Your task to perform on an android device: turn on translation in the chrome app Image 0: 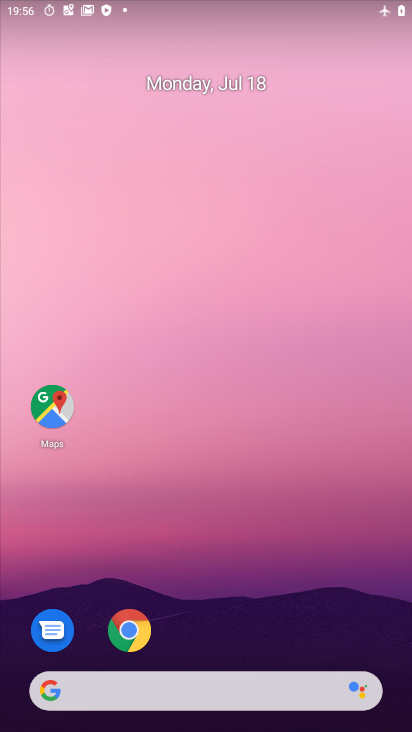
Step 0: drag from (321, 463) to (274, 239)
Your task to perform on an android device: turn on translation in the chrome app Image 1: 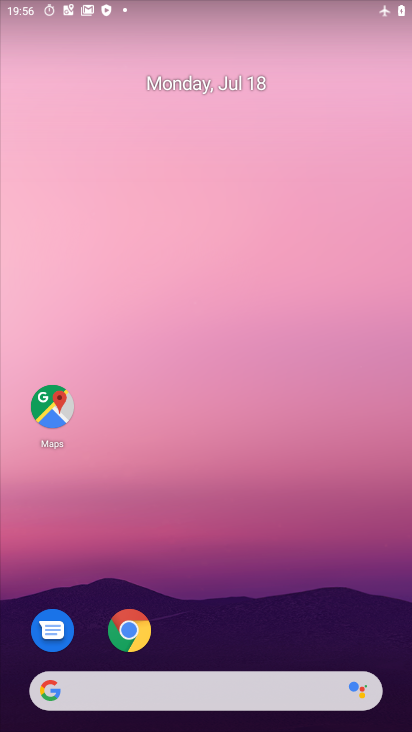
Step 1: drag from (320, 604) to (321, 70)
Your task to perform on an android device: turn on translation in the chrome app Image 2: 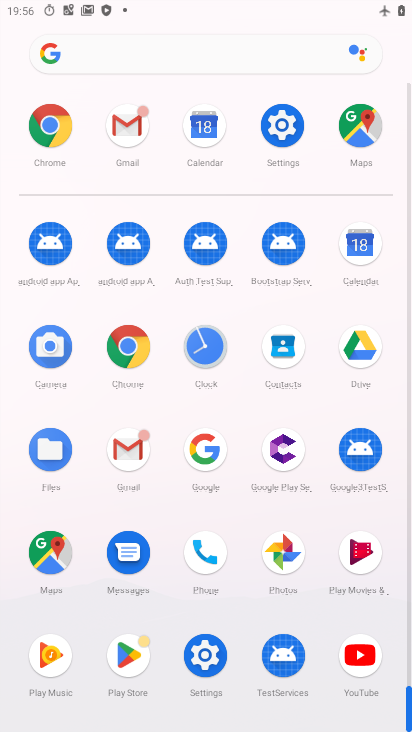
Step 2: click (57, 138)
Your task to perform on an android device: turn on translation in the chrome app Image 3: 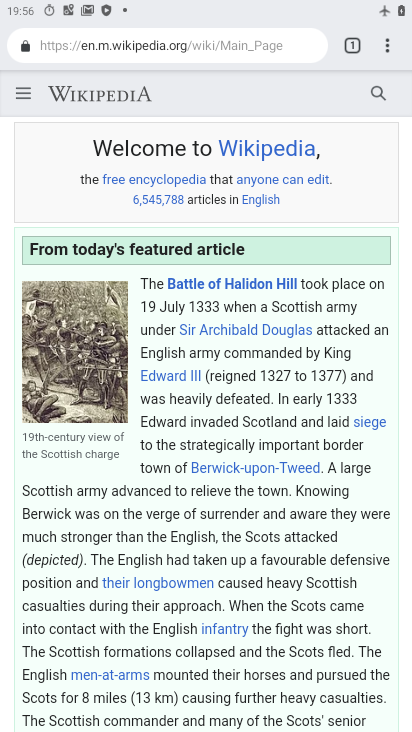
Step 3: drag from (393, 46) to (228, 509)
Your task to perform on an android device: turn on translation in the chrome app Image 4: 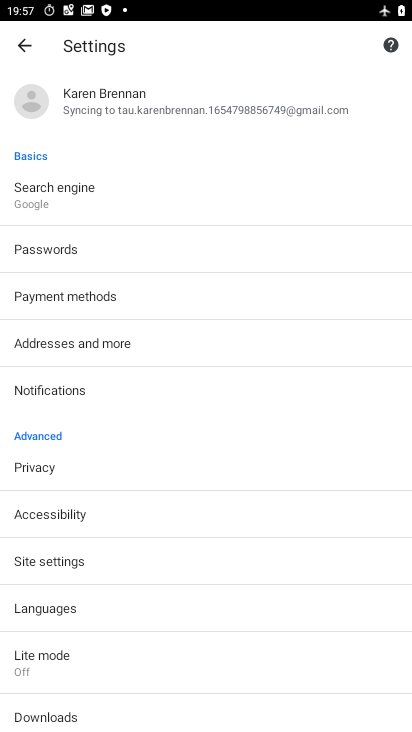
Step 4: drag from (98, 648) to (166, 295)
Your task to perform on an android device: turn on translation in the chrome app Image 5: 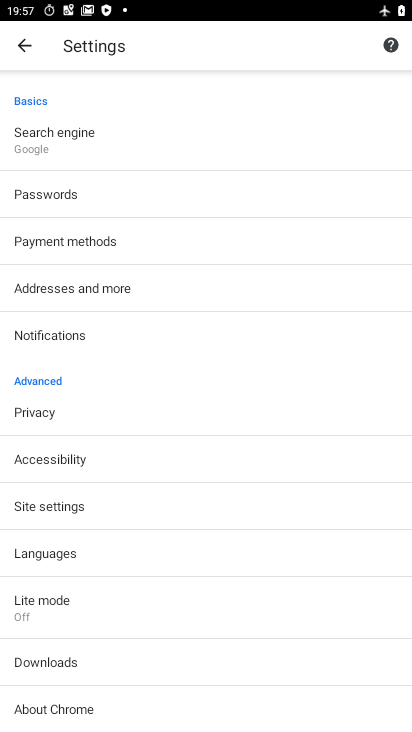
Step 5: click (58, 551)
Your task to perform on an android device: turn on translation in the chrome app Image 6: 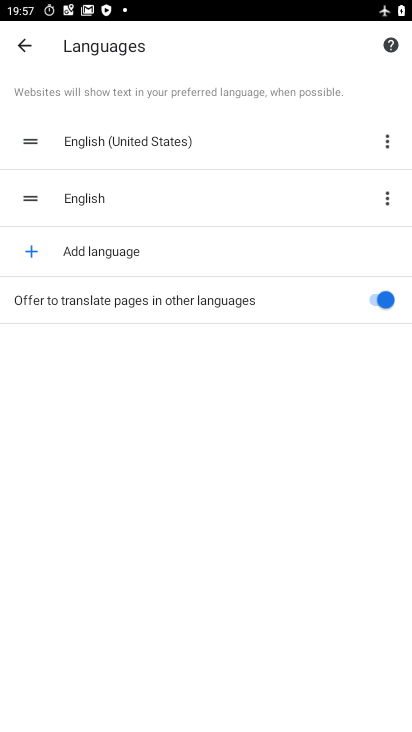
Step 6: task complete